Your task to perform on an android device: check the backup settings in the google photos Image 0: 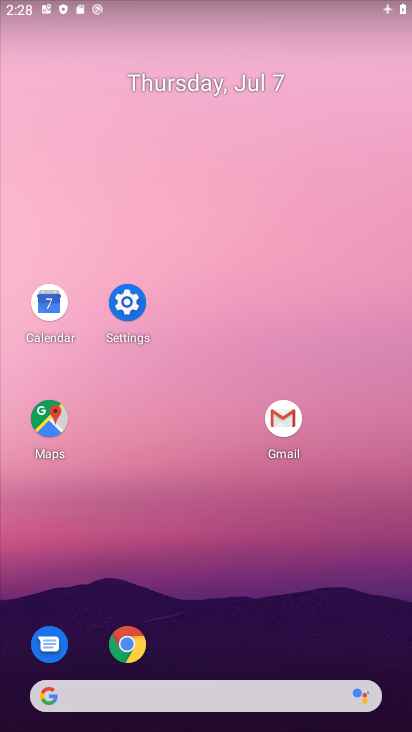
Step 0: drag from (393, 669) to (311, 23)
Your task to perform on an android device: check the backup settings in the google photos Image 1: 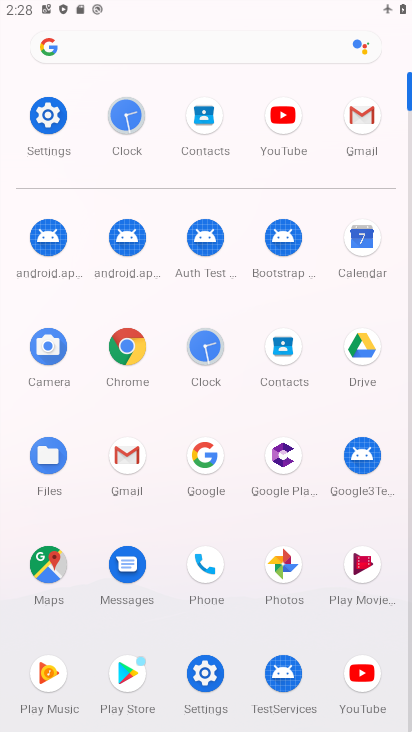
Step 1: click (266, 561)
Your task to perform on an android device: check the backup settings in the google photos Image 2: 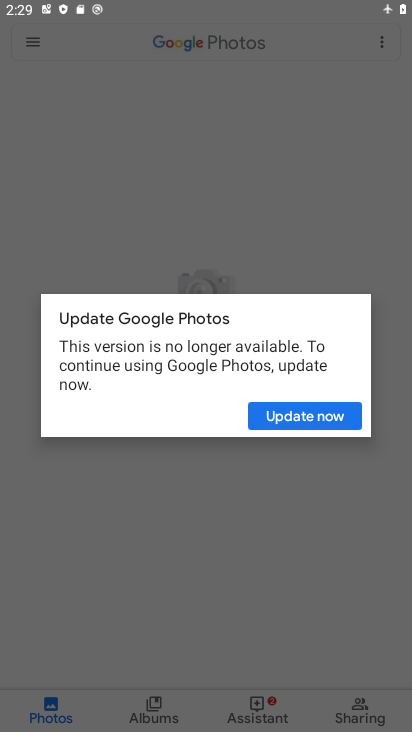
Step 2: click (279, 415)
Your task to perform on an android device: check the backup settings in the google photos Image 3: 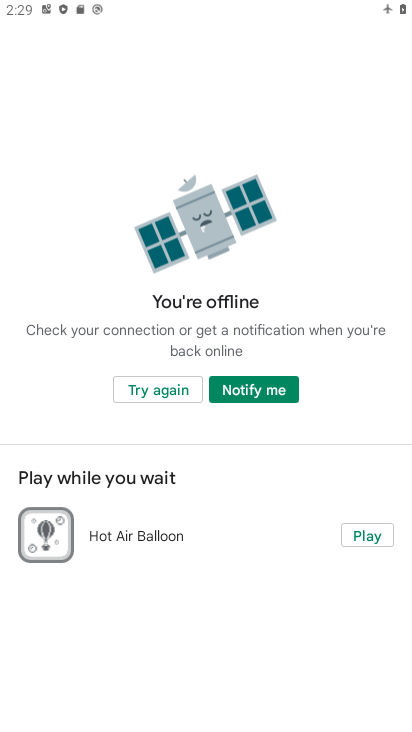
Step 3: task complete